Your task to perform on an android device: Add panasonic triple a to the cart on amazon.com, then select checkout. Image 0: 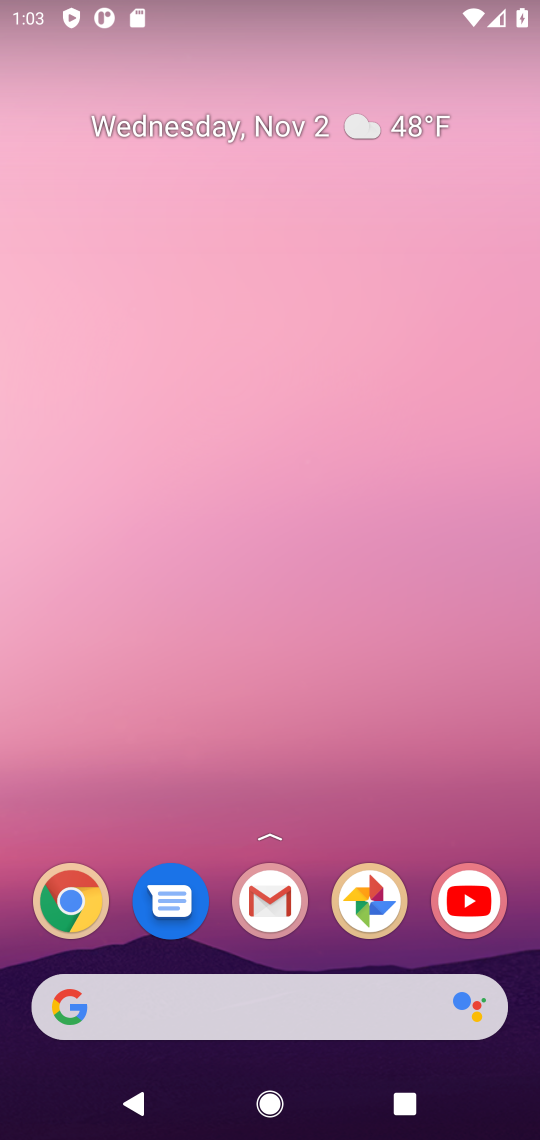
Step 0: drag from (334, 946) to (465, 249)
Your task to perform on an android device: Add panasonic triple a to the cart on amazon.com, then select checkout. Image 1: 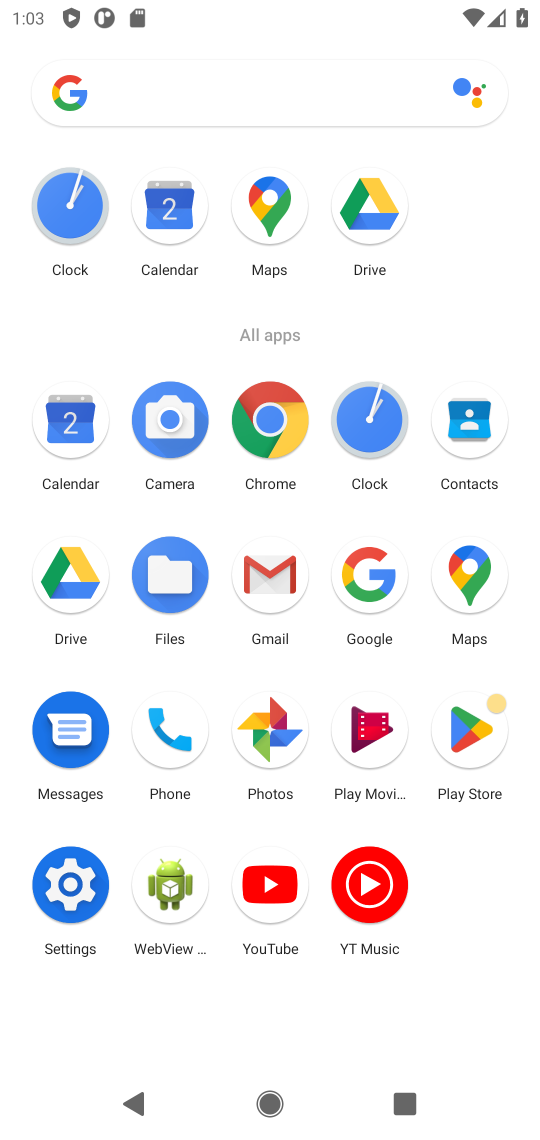
Step 1: click (272, 417)
Your task to perform on an android device: Add panasonic triple a to the cart on amazon.com, then select checkout. Image 2: 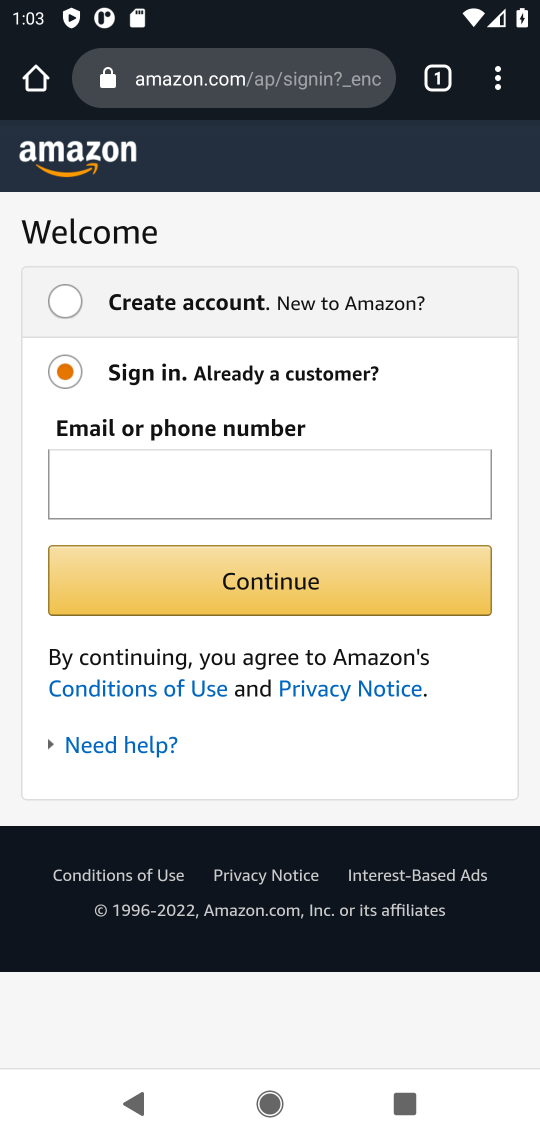
Step 2: click (287, 85)
Your task to perform on an android device: Add panasonic triple a to the cart on amazon.com, then select checkout. Image 3: 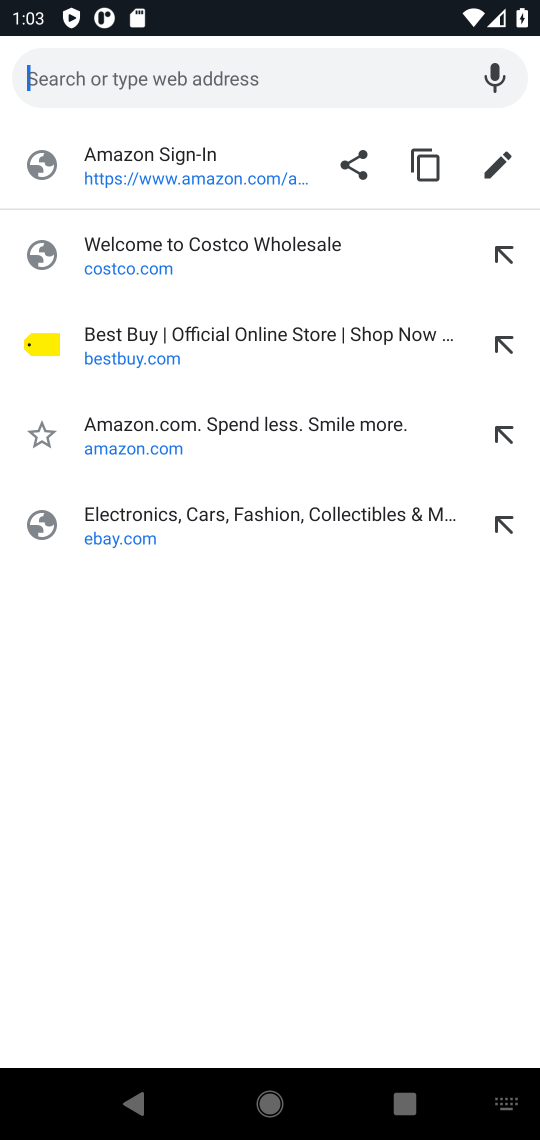
Step 3: type "amazon.com"
Your task to perform on an android device: Add panasonic triple a to the cart on amazon.com, then select checkout. Image 4: 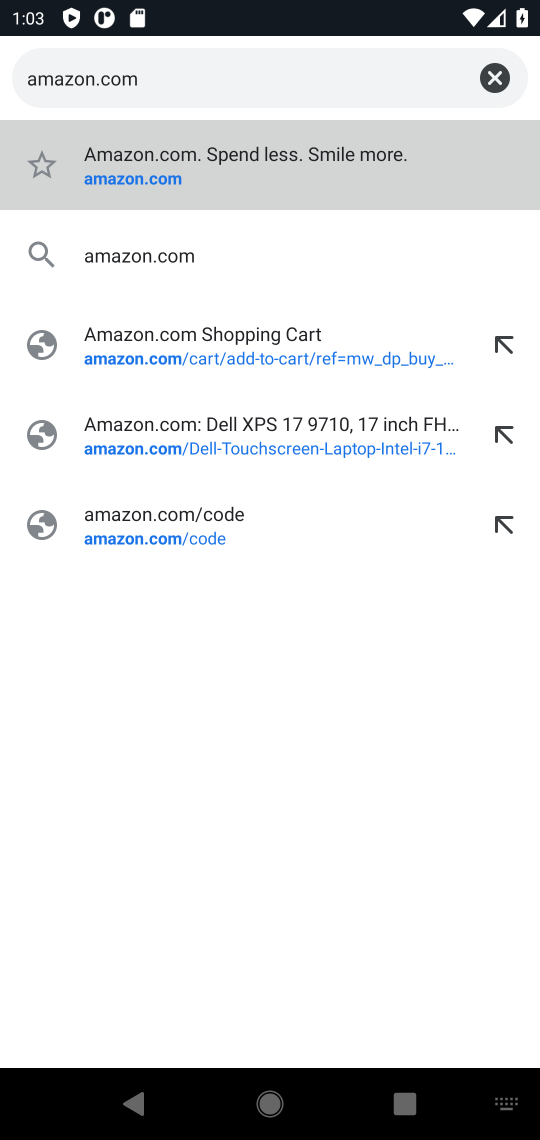
Step 4: press enter
Your task to perform on an android device: Add panasonic triple a to the cart on amazon.com, then select checkout. Image 5: 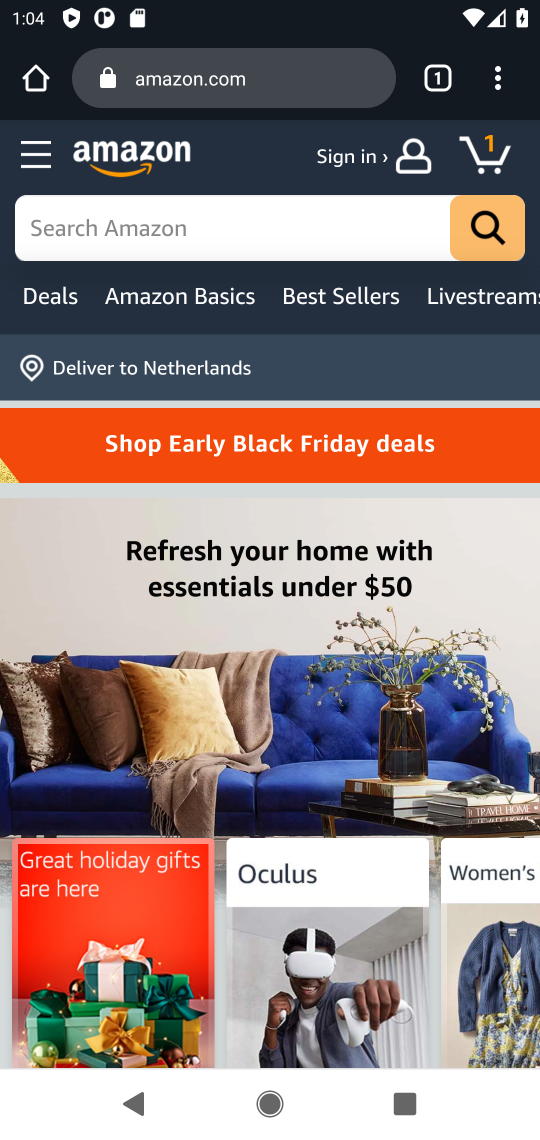
Step 5: click (243, 216)
Your task to perform on an android device: Add panasonic triple a to the cart on amazon.com, then select checkout. Image 6: 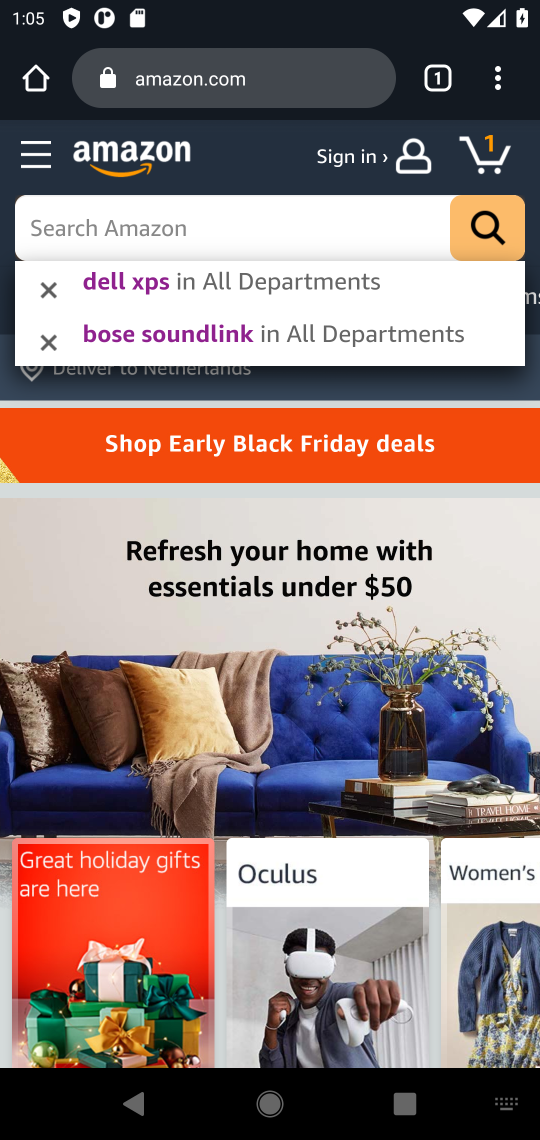
Step 6: type "panasonic triple a"
Your task to perform on an android device: Add panasonic triple a to the cart on amazon.com, then select checkout. Image 7: 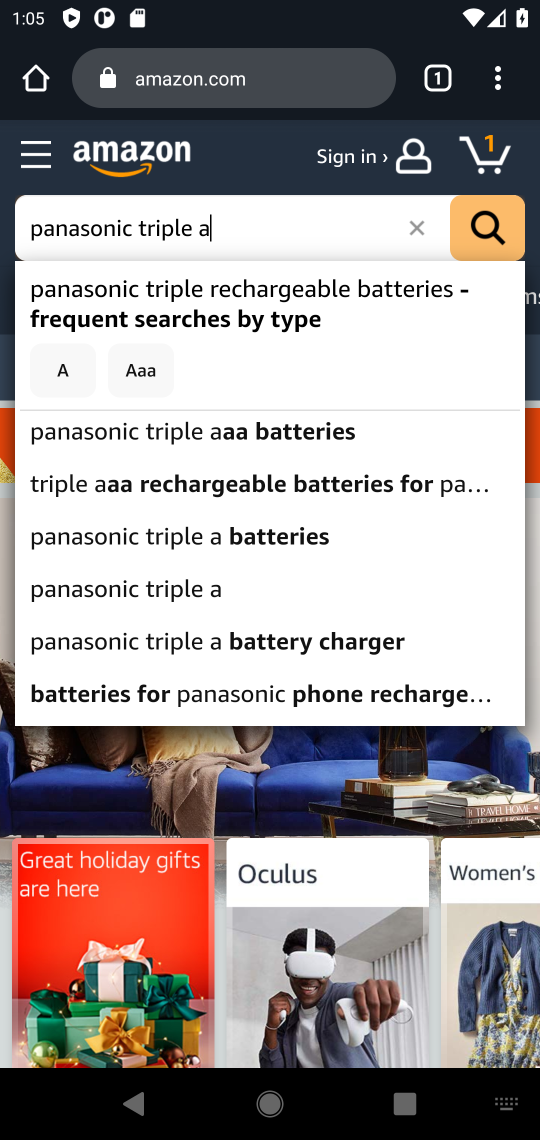
Step 7: press enter
Your task to perform on an android device: Add panasonic triple a to the cart on amazon.com, then select checkout. Image 8: 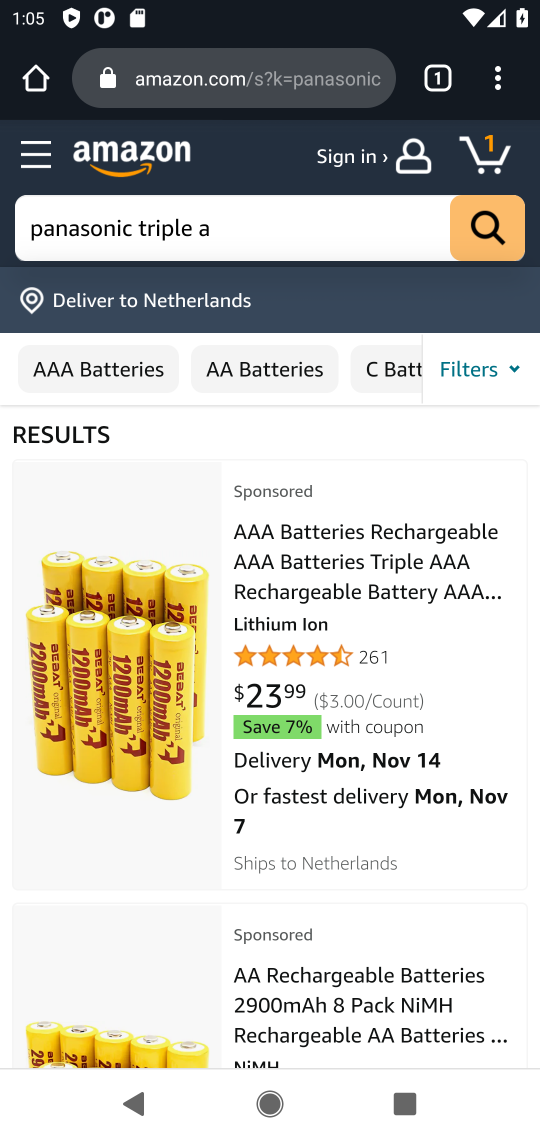
Step 8: drag from (304, 1028) to (285, 291)
Your task to perform on an android device: Add panasonic triple a to the cart on amazon.com, then select checkout. Image 9: 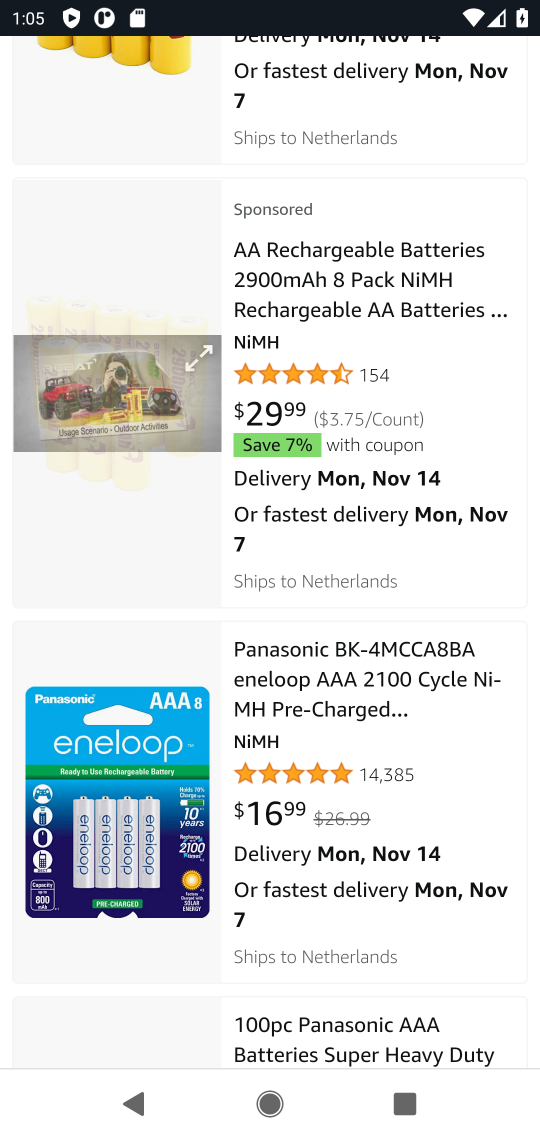
Step 9: drag from (312, 995) to (382, 358)
Your task to perform on an android device: Add panasonic triple a to the cart on amazon.com, then select checkout. Image 10: 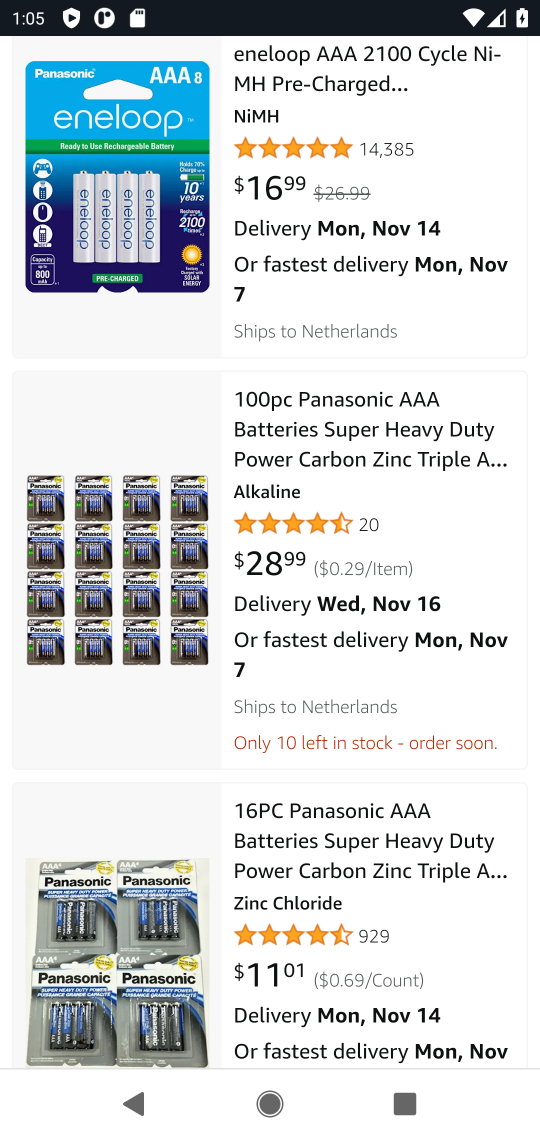
Step 10: drag from (416, 137) to (356, 448)
Your task to perform on an android device: Add panasonic triple a to the cart on amazon.com, then select checkout. Image 11: 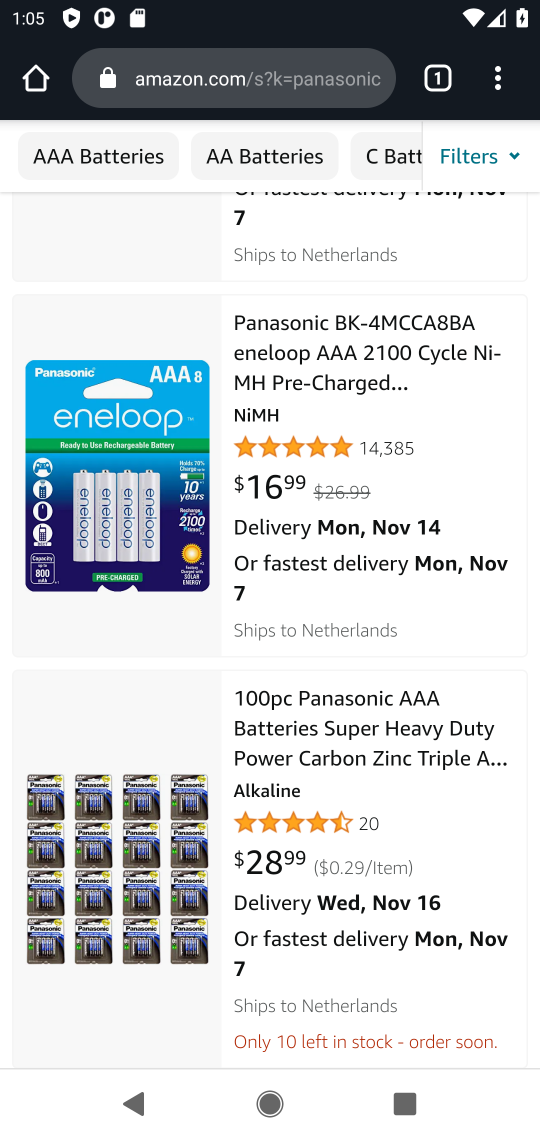
Step 11: click (190, 408)
Your task to perform on an android device: Add panasonic triple a to the cart on amazon.com, then select checkout. Image 12: 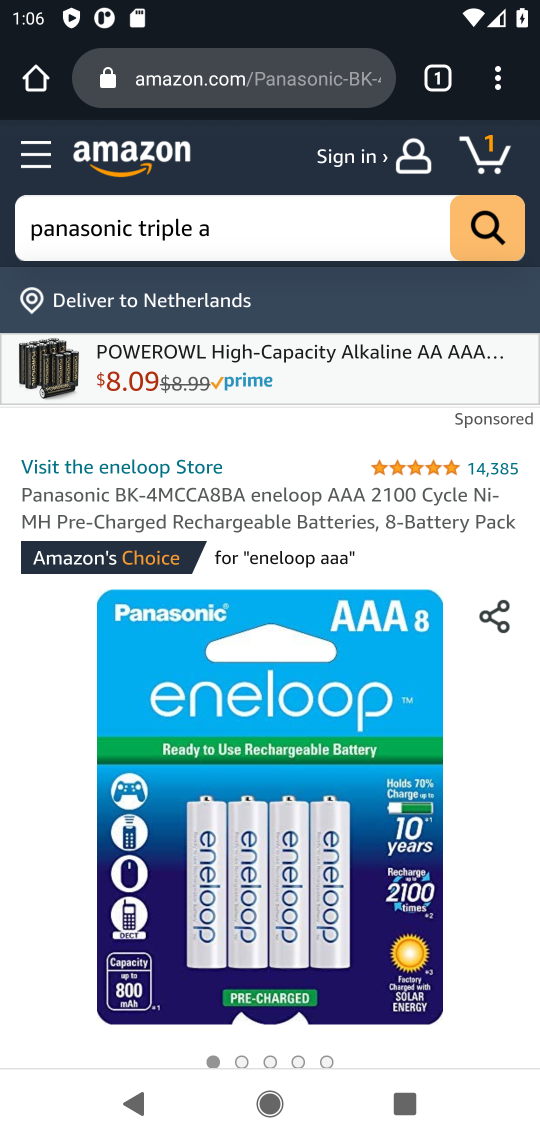
Step 12: drag from (448, 909) to (408, 131)
Your task to perform on an android device: Add panasonic triple a to the cart on amazon.com, then select checkout. Image 13: 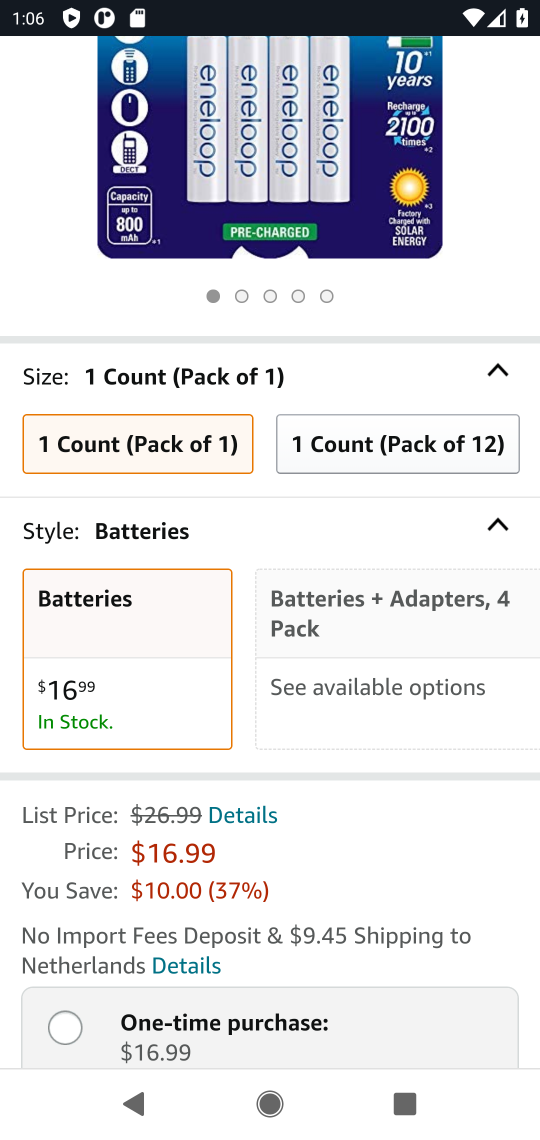
Step 13: drag from (243, 963) to (318, 277)
Your task to perform on an android device: Add panasonic triple a to the cart on amazon.com, then select checkout. Image 14: 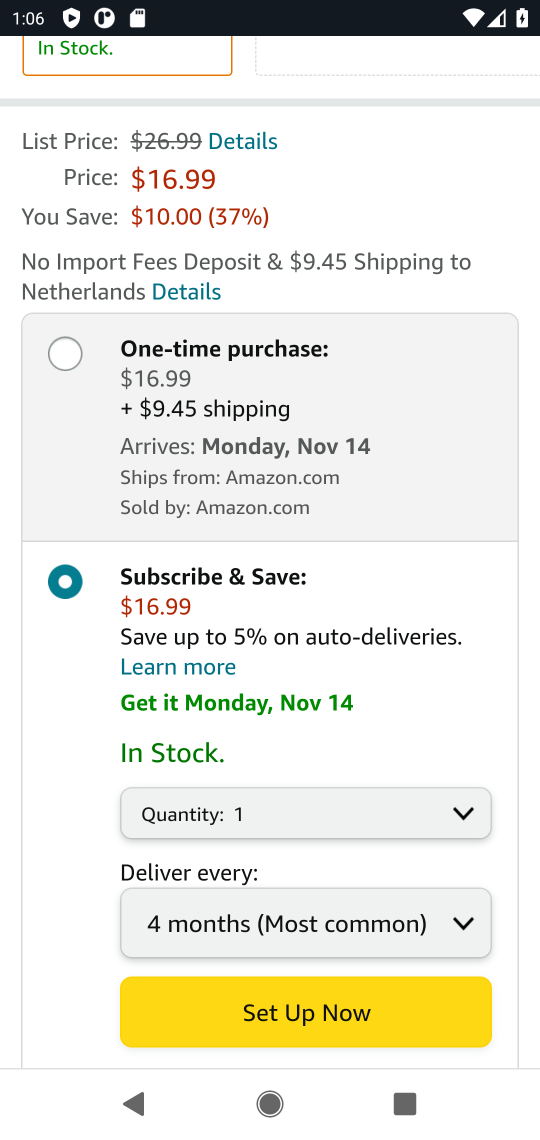
Step 14: drag from (328, 977) to (317, 466)
Your task to perform on an android device: Add panasonic triple a to the cart on amazon.com, then select checkout. Image 15: 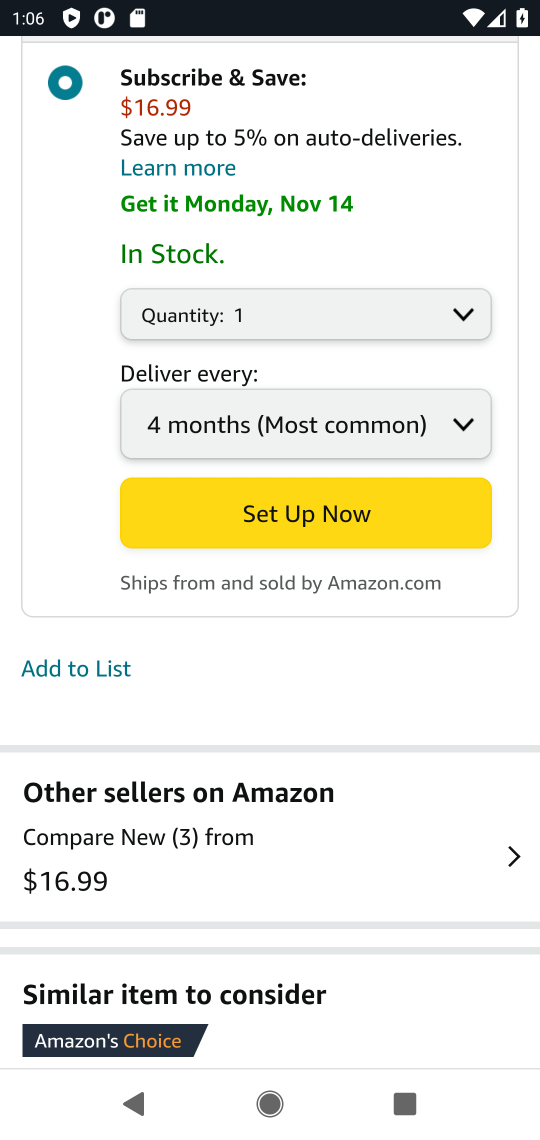
Step 15: drag from (301, 872) to (288, 956)
Your task to perform on an android device: Add panasonic triple a to the cart on amazon.com, then select checkout. Image 16: 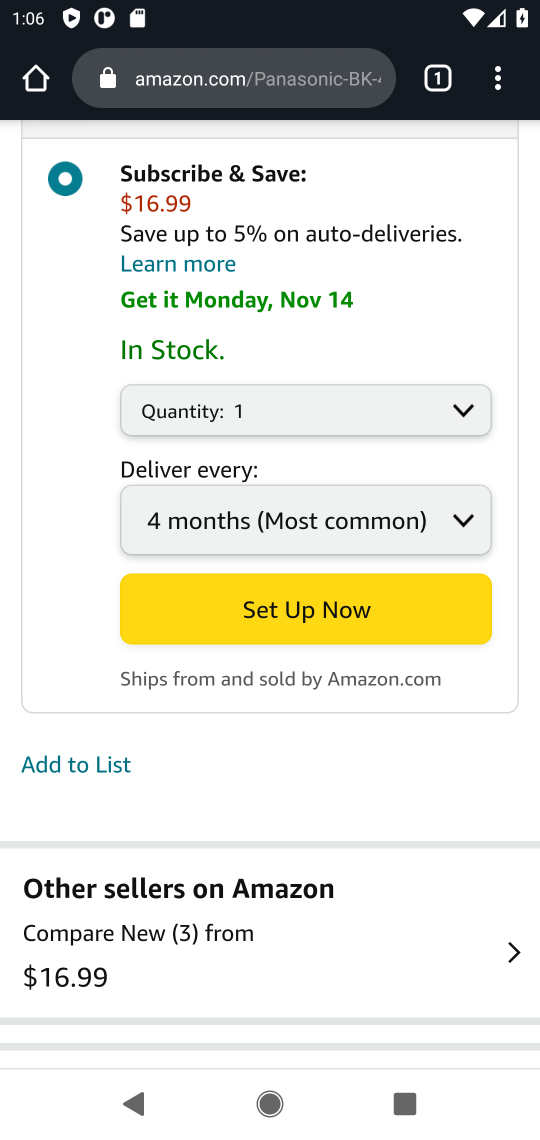
Step 16: drag from (377, 314) to (269, 727)
Your task to perform on an android device: Add panasonic triple a to the cart on amazon.com, then select checkout. Image 17: 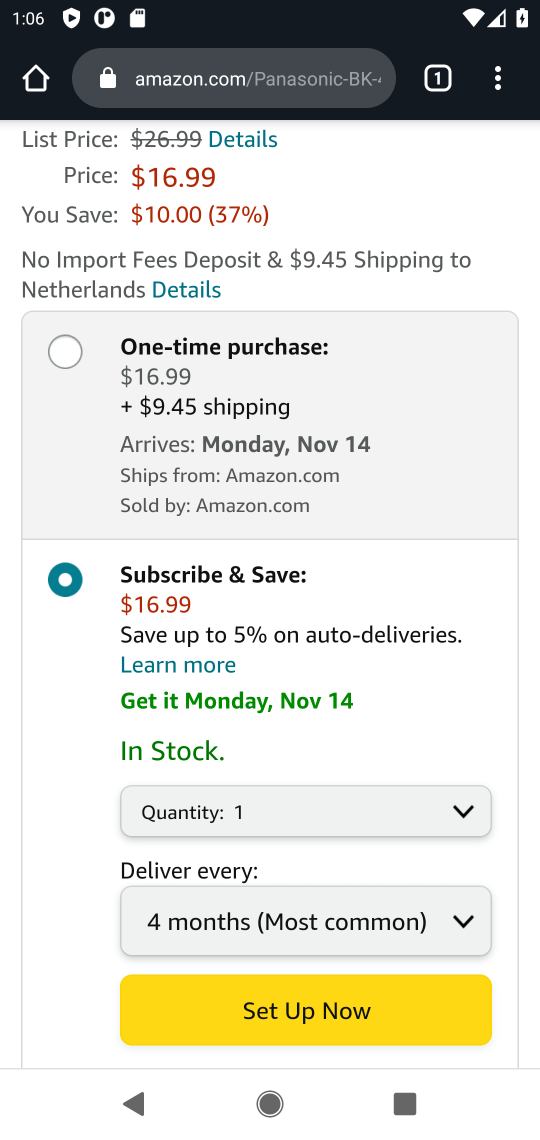
Step 17: drag from (388, 197) to (245, 780)
Your task to perform on an android device: Add panasonic triple a to the cart on amazon.com, then select checkout. Image 18: 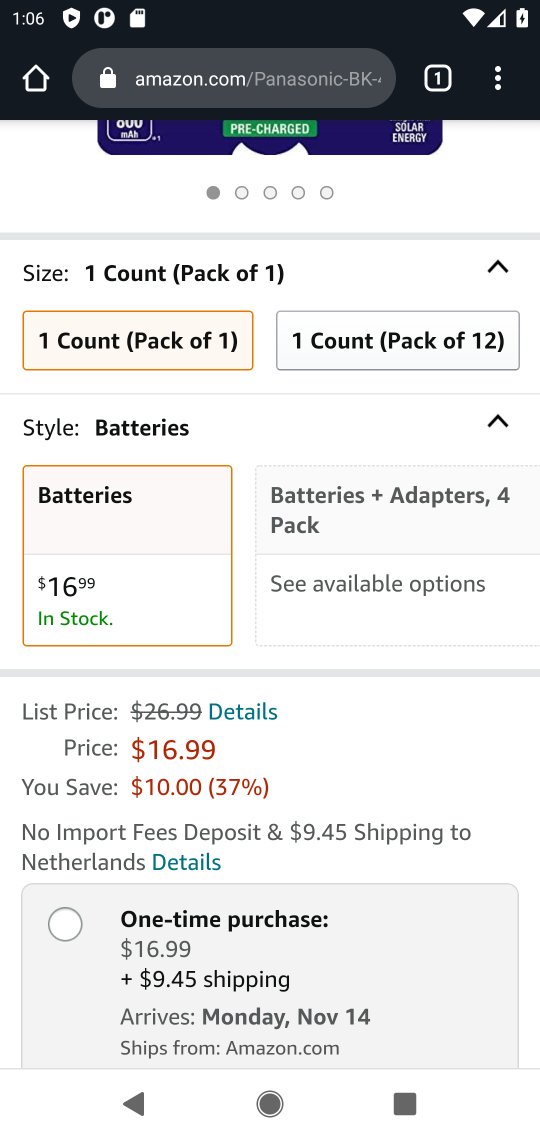
Step 18: drag from (321, 356) to (440, 4)
Your task to perform on an android device: Add panasonic triple a to the cart on amazon.com, then select checkout. Image 19: 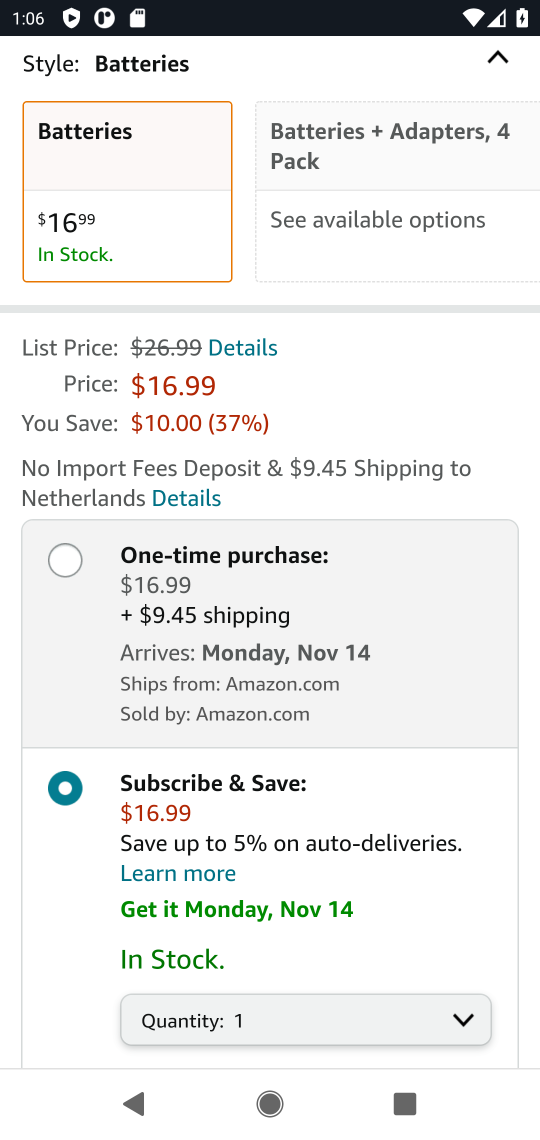
Step 19: drag from (346, 804) to (369, 72)
Your task to perform on an android device: Add panasonic triple a to the cart on amazon.com, then select checkout. Image 20: 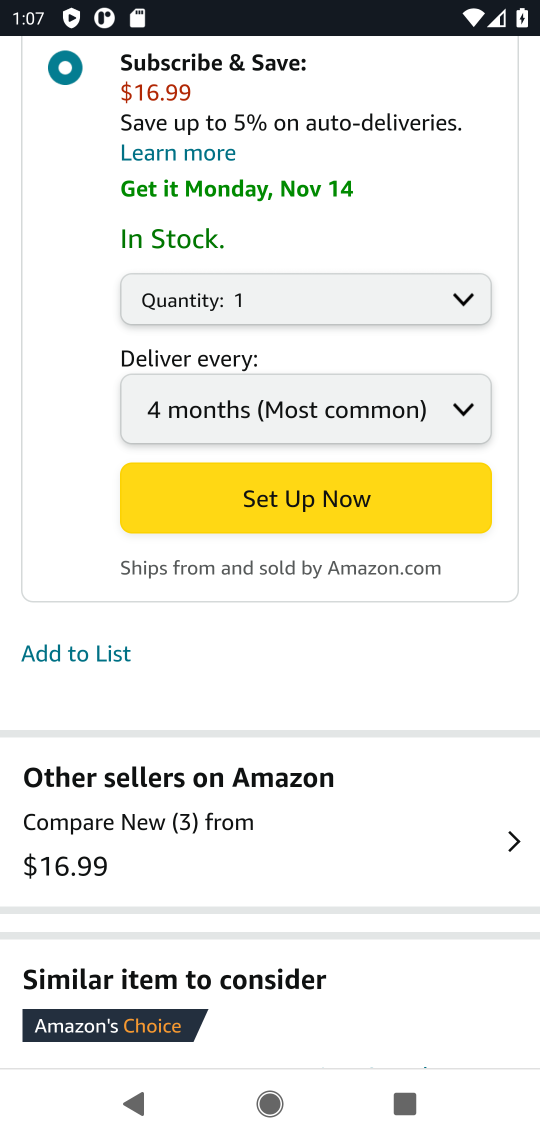
Step 20: drag from (330, 921) to (363, 202)
Your task to perform on an android device: Add panasonic triple a to the cart on amazon.com, then select checkout. Image 21: 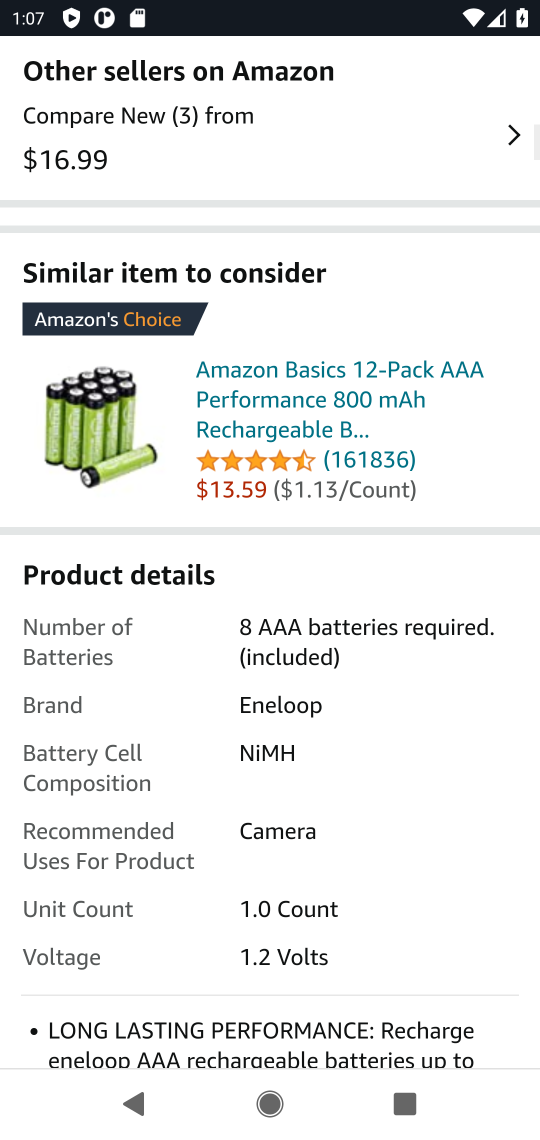
Step 21: drag from (261, 916) to (324, 246)
Your task to perform on an android device: Add panasonic triple a to the cart on amazon.com, then select checkout. Image 22: 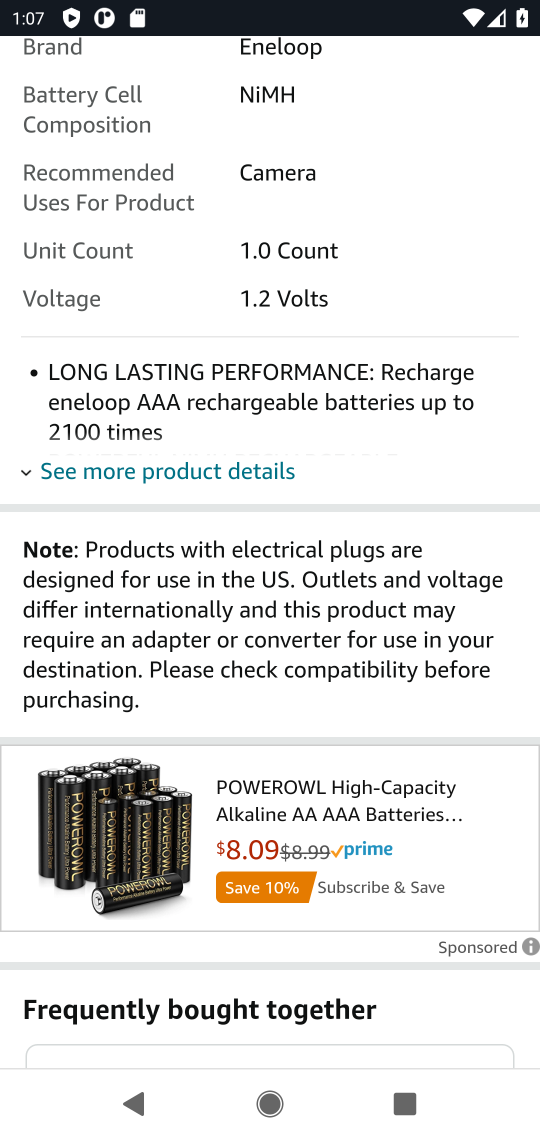
Step 22: drag from (286, 847) to (320, 344)
Your task to perform on an android device: Add panasonic triple a to the cart on amazon.com, then select checkout. Image 23: 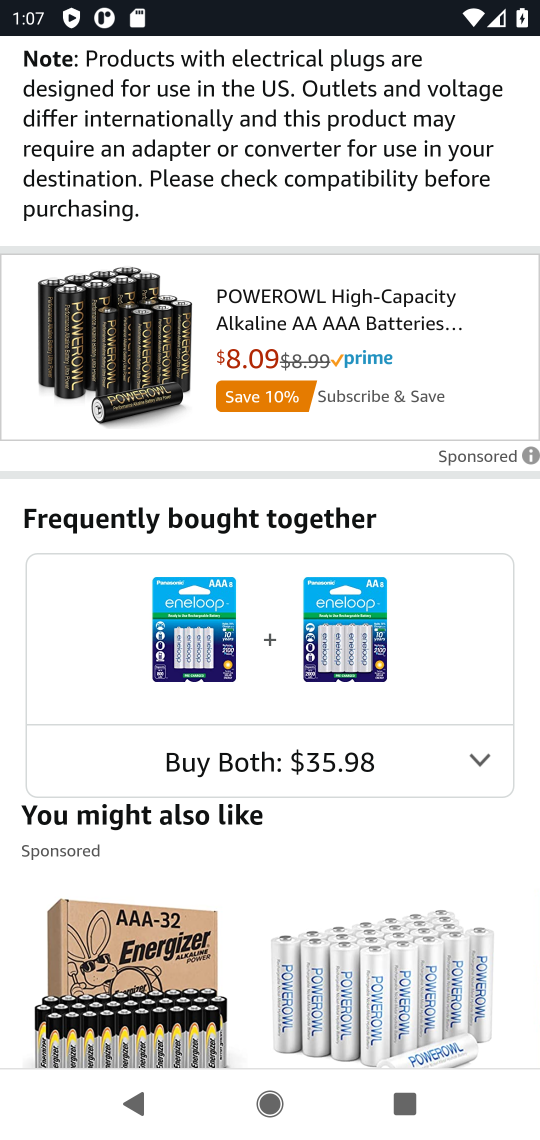
Step 23: drag from (414, 188) to (279, 713)
Your task to perform on an android device: Add panasonic triple a to the cart on amazon.com, then select checkout. Image 24: 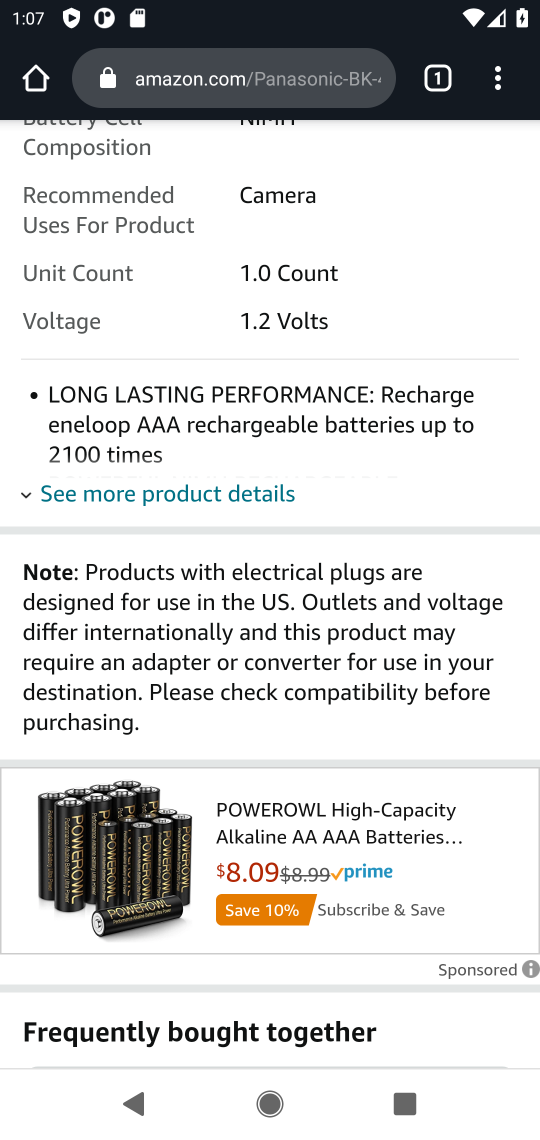
Step 24: drag from (289, 417) to (291, 1036)
Your task to perform on an android device: Add panasonic triple a to the cart on amazon.com, then select checkout. Image 25: 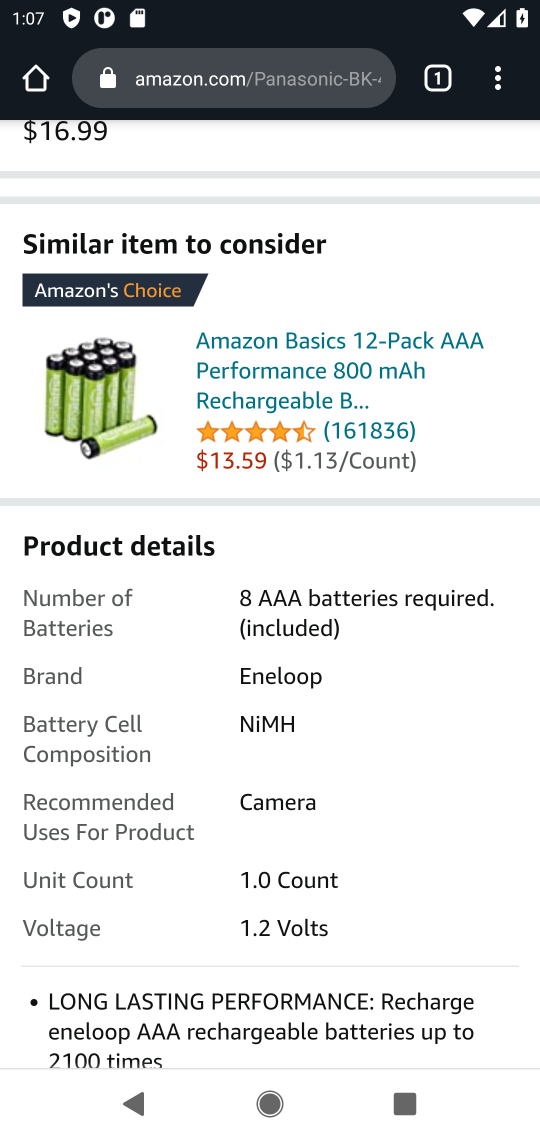
Step 25: drag from (322, 259) to (176, 948)
Your task to perform on an android device: Add panasonic triple a to the cart on amazon.com, then select checkout. Image 26: 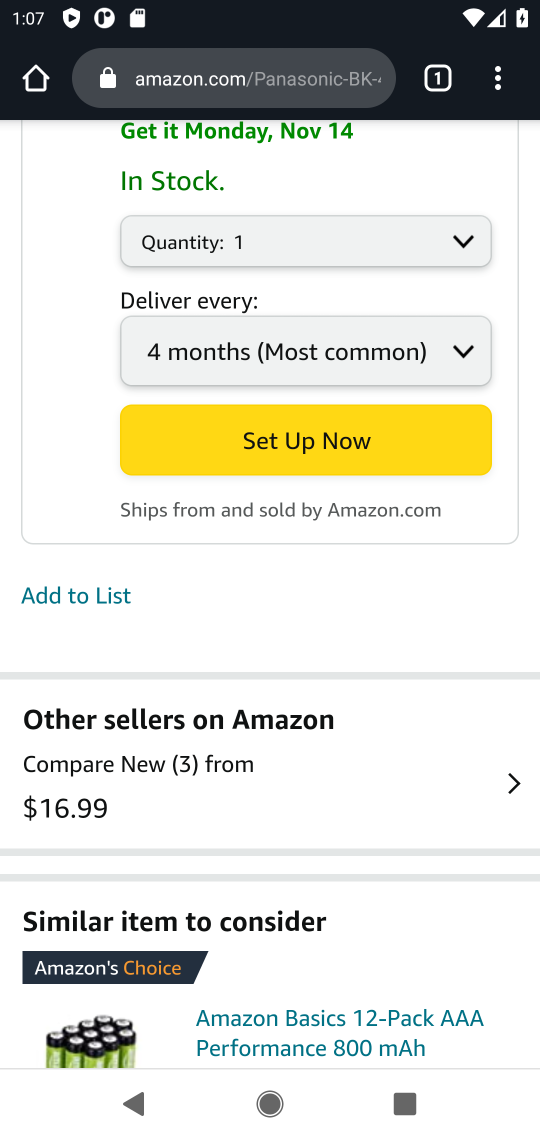
Step 26: drag from (368, 270) to (228, 861)
Your task to perform on an android device: Add panasonic triple a to the cart on amazon.com, then select checkout. Image 27: 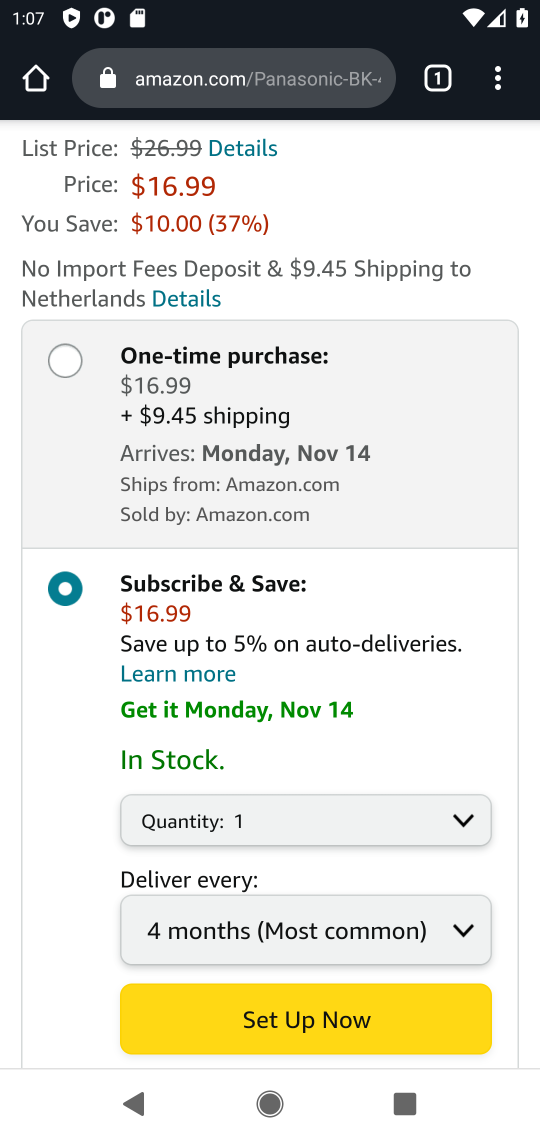
Step 27: click (228, 358)
Your task to perform on an android device: Add panasonic triple a to the cart on amazon.com, then select checkout. Image 28: 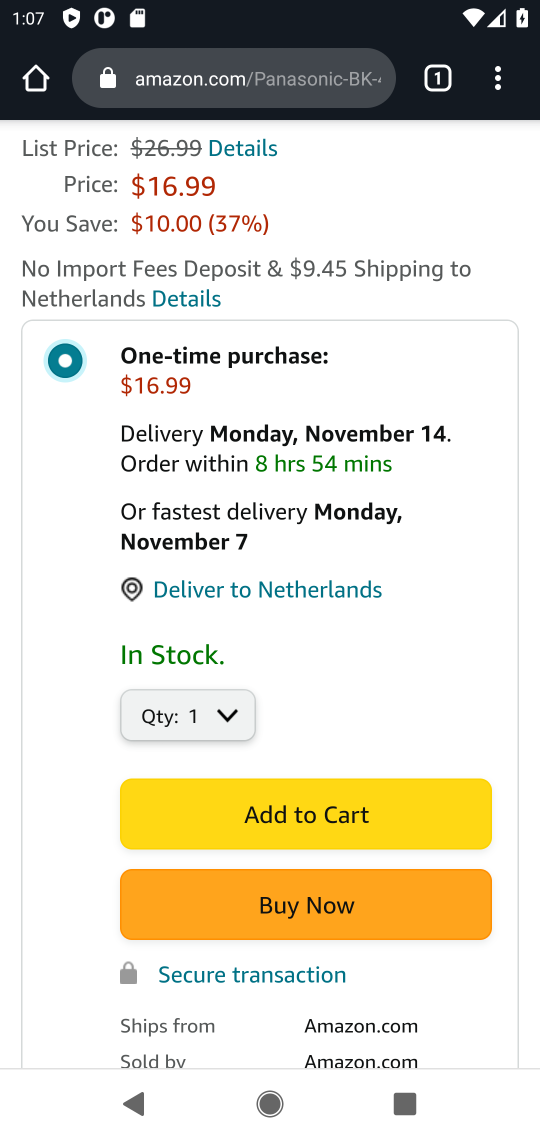
Step 28: click (345, 851)
Your task to perform on an android device: Add panasonic triple a to the cart on amazon.com, then select checkout. Image 29: 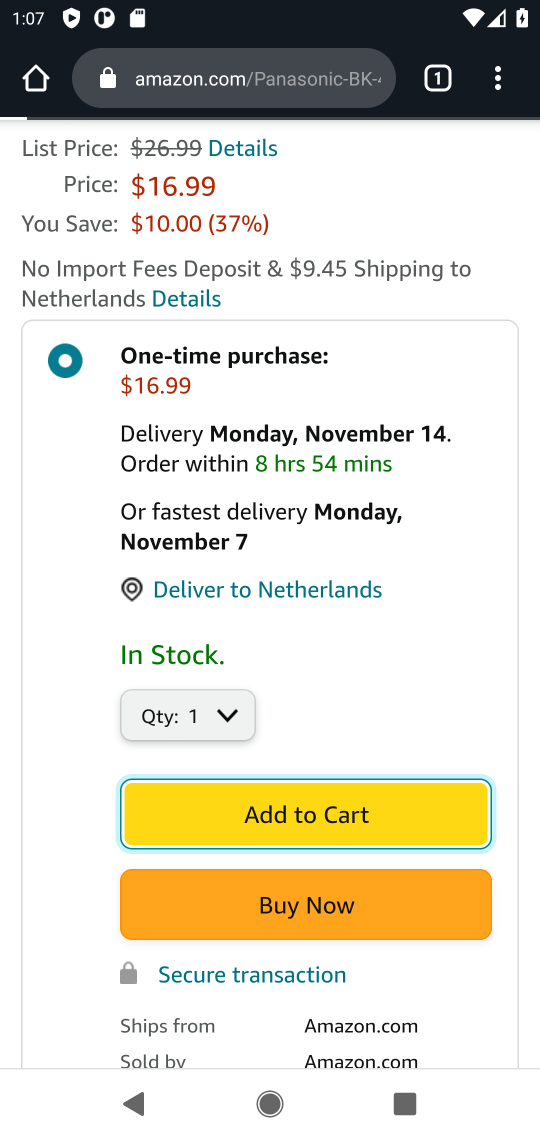
Step 29: click (351, 819)
Your task to perform on an android device: Add panasonic triple a to the cart on amazon.com, then select checkout. Image 30: 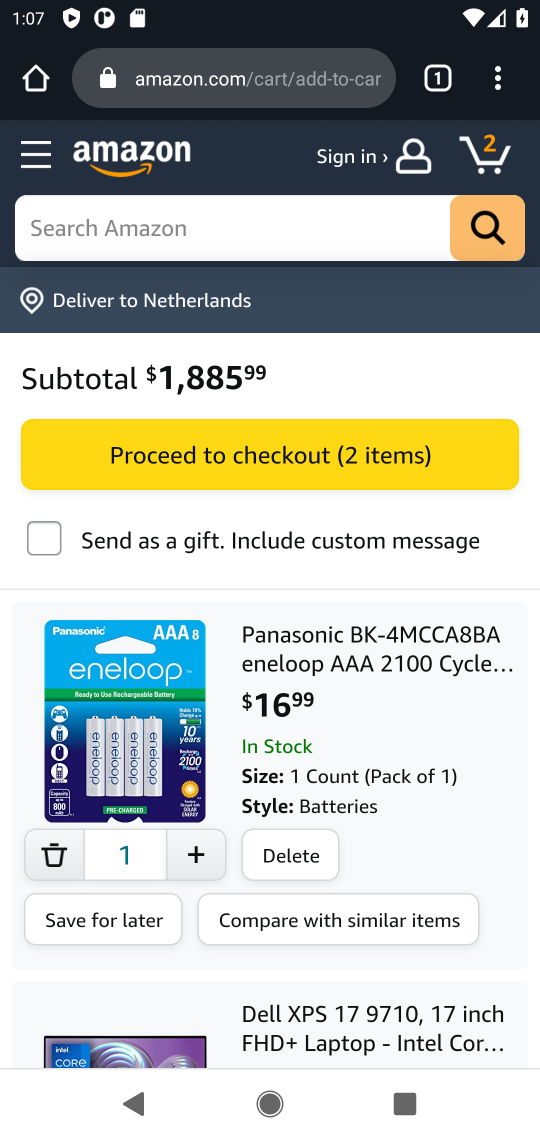
Step 30: click (357, 467)
Your task to perform on an android device: Add panasonic triple a to the cart on amazon.com, then select checkout. Image 31: 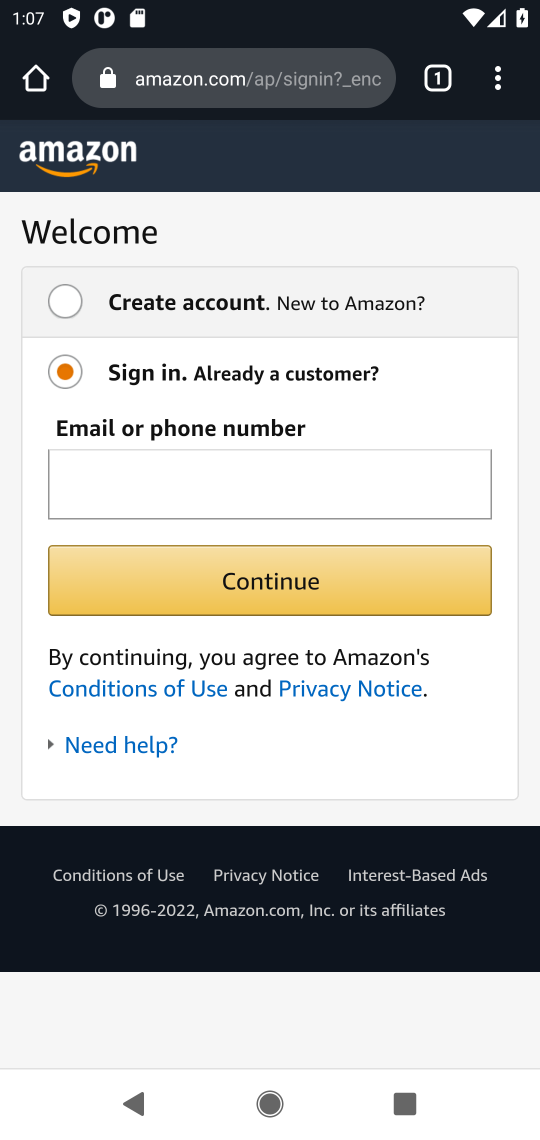
Step 31: task complete